Your task to perform on an android device: all mails in gmail Image 0: 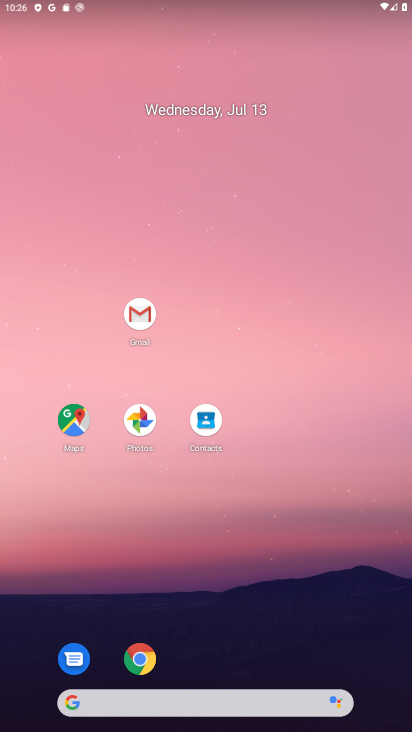
Step 0: click (142, 308)
Your task to perform on an android device: all mails in gmail Image 1: 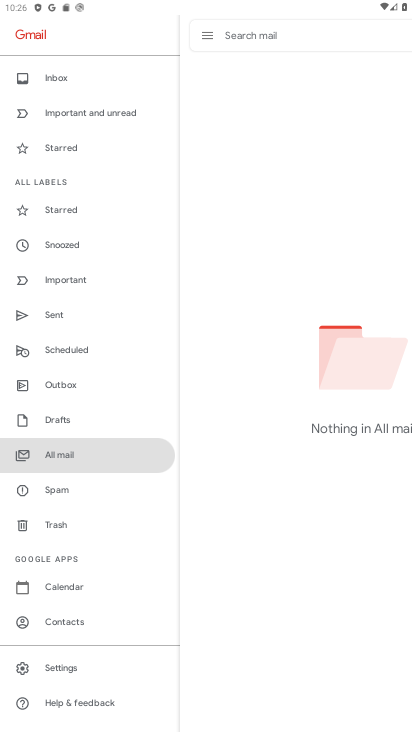
Step 1: click (64, 459)
Your task to perform on an android device: all mails in gmail Image 2: 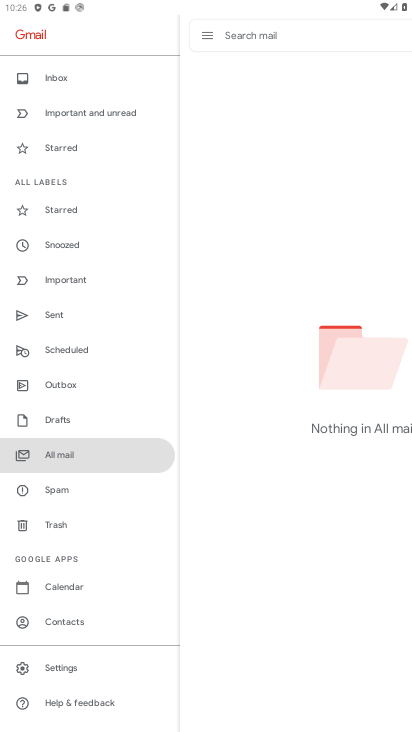
Step 2: task complete